Your task to perform on an android device: Show me popular games on the Play Store Image 0: 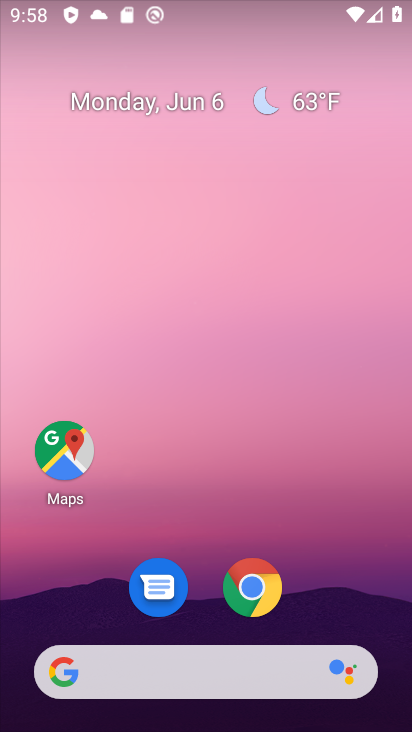
Step 0: drag from (156, 656) to (162, 180)
Your task to perform on an android device: Show me popular games on the Play Store Image 1: 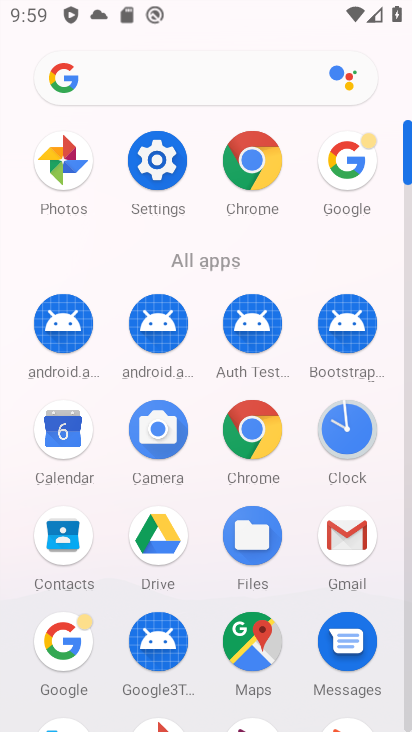
Step 1: drag from (107, 680) to (126, 234)
Your task to perform on an android device: Show me popular games on the Play Store Image 2: 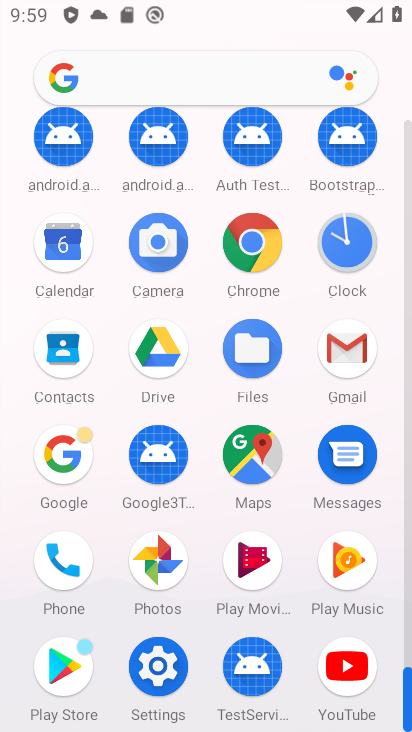
Step 2: click (52, 679)
Your task to perform on an android device: Show me popular games on the Play Store Image 3: 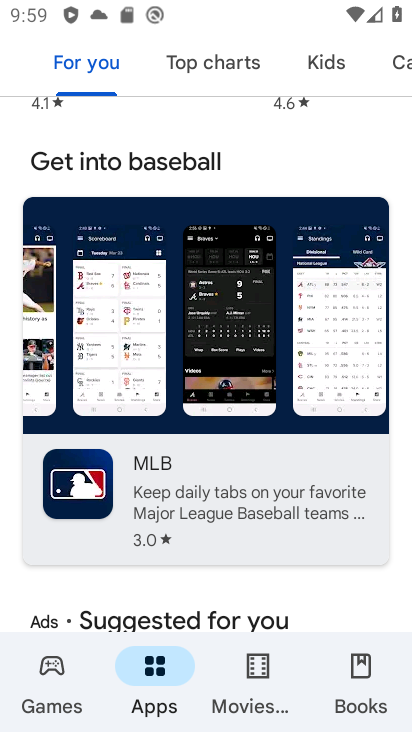
Step 3: drag from (174, 587) to (145, 148)
Your task to perform on an android device: Show me popular games on the Play Store Image 4: 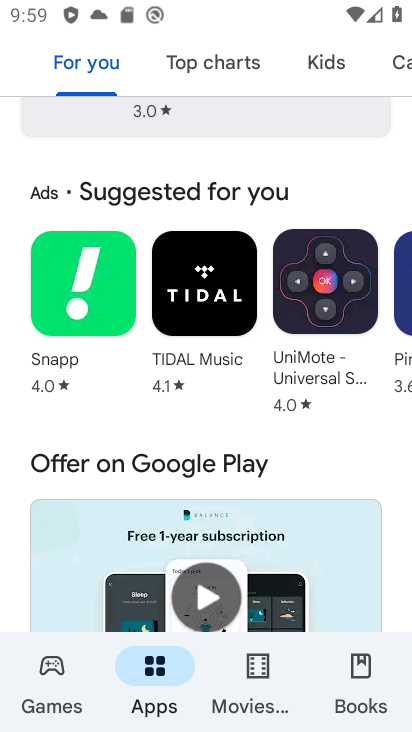
Step 4: drag from (172, 137) to (174, 598)
Your task to perform on an android device: Show me popular games on the Play Store Image 5: 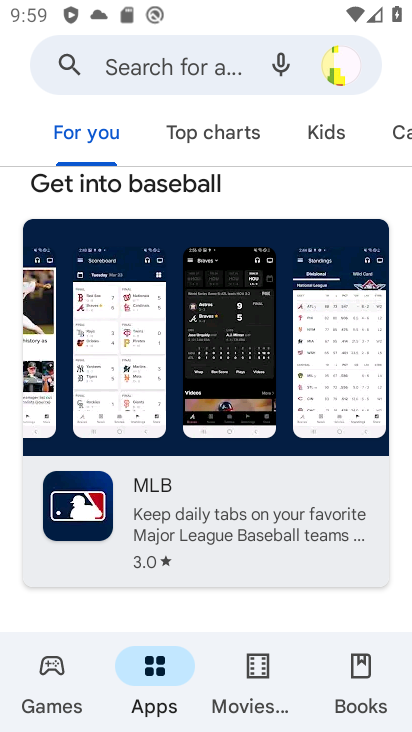
Step 5: click (166, 61)
Your task to perform on an android device: Show me popular games on the Play Store Image 6: 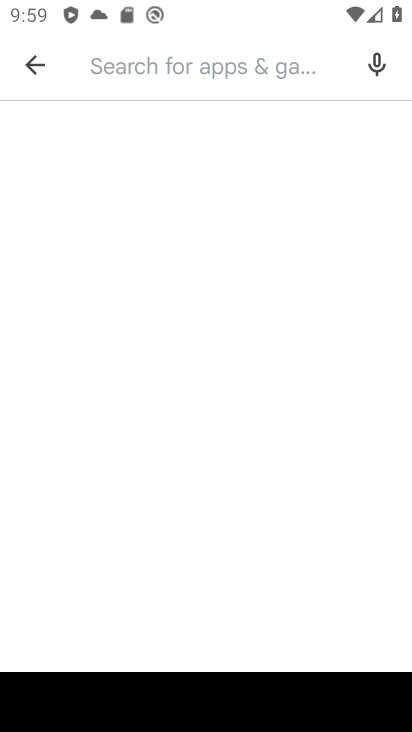
Step 6: type "popular games"
Your task to perform on an android device: Show me popular games on the Play Store Image 7: 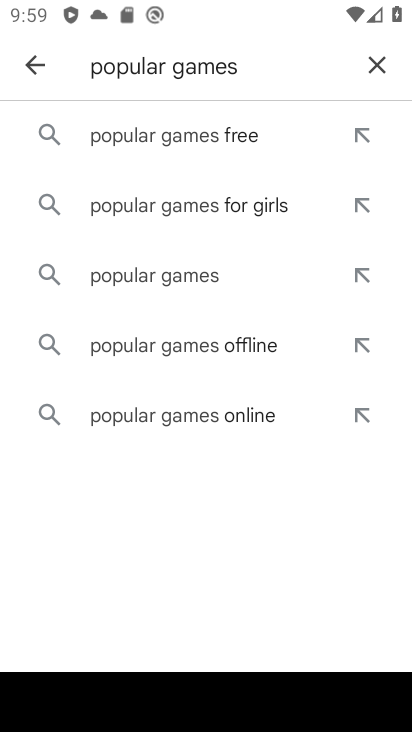
Step 7: click (188, 281)
Your task to perform on an android device: Show me popular games on the Play Store Image 8: 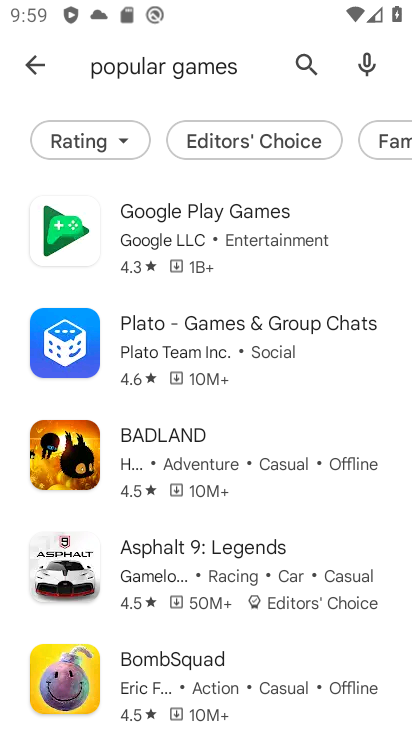
Step 8: task complete